Your task to perform on an android device: Go to battery settings Image 0: 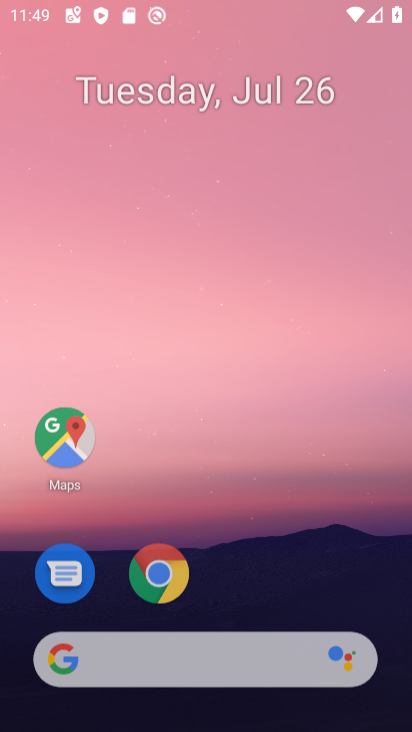
Step 0: press home button
Your task to perform on an android device: Go to battery settings Image 1: 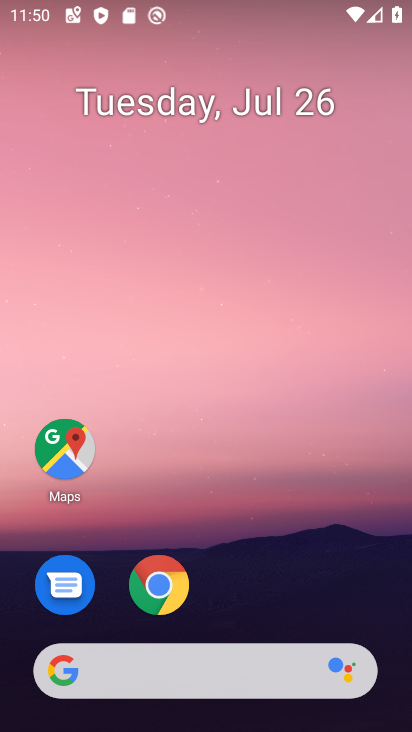
Step 1: drag from (242, 588) to (295, 35)
Your task to perform on an android device: Go to battery settings Image 2: 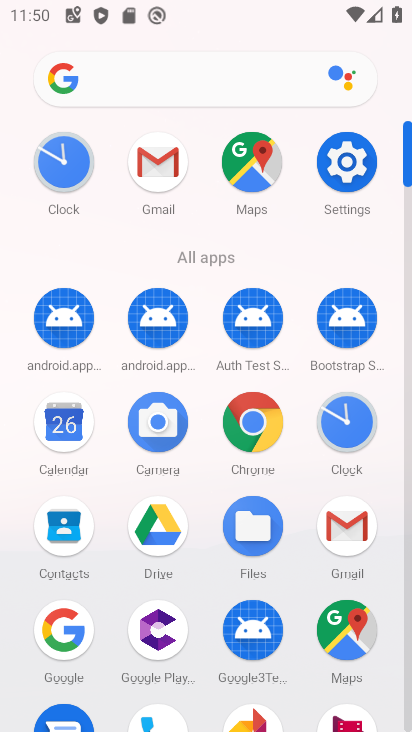
Step 2: click (351, 154)
Your task to perform on an android device: Go to battery settings Image 3: 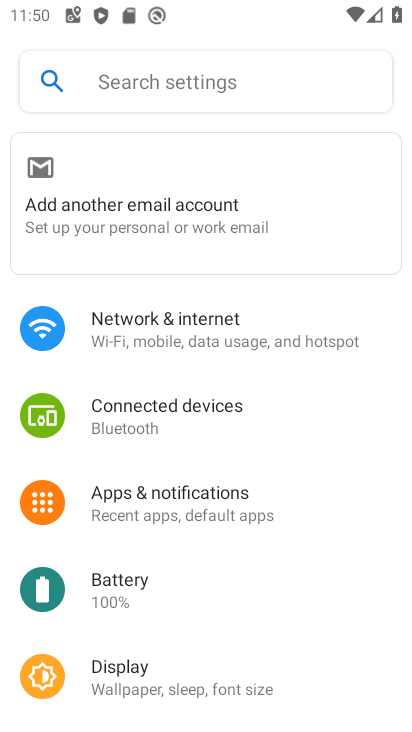
Step 3: click (141, 587)
Your task to perform on an android device: Go to battery settings Image 4: 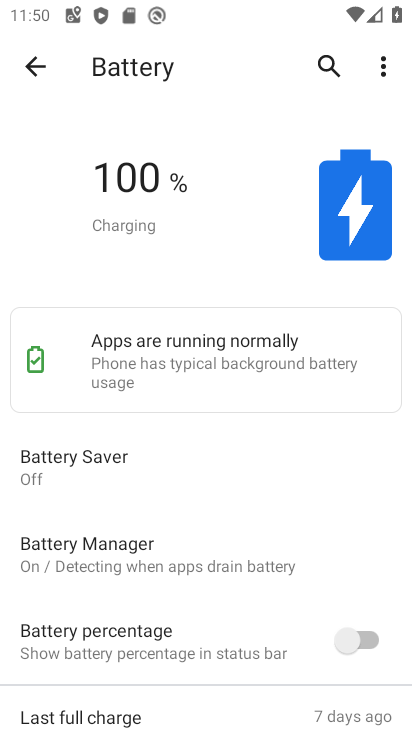
Step 4: task complete